Your task to perform on an android device: Open calendar and show me the first week of next month Image 0: 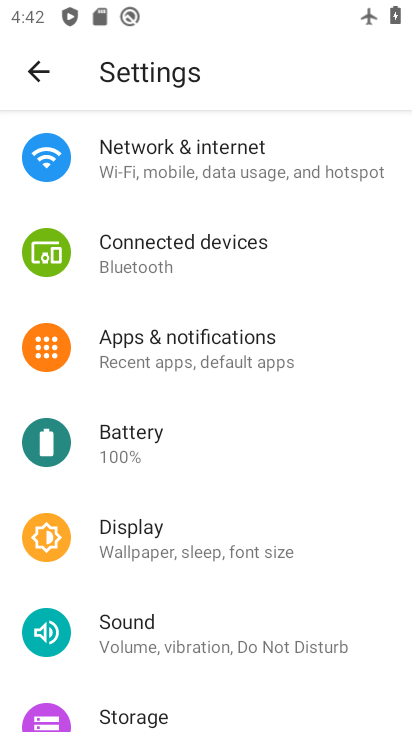
Step 0: press home button
Your task to perform on an android device: Open calendar and show me the first week of next month Image 1: 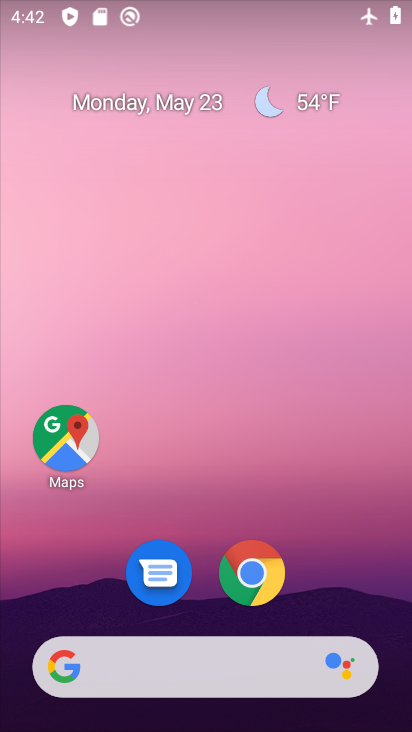
Step 1: drag from (269, 707) to (251, 148)
Your task to perform on an android device: Open calendar and show me the first week of next month Image 2: 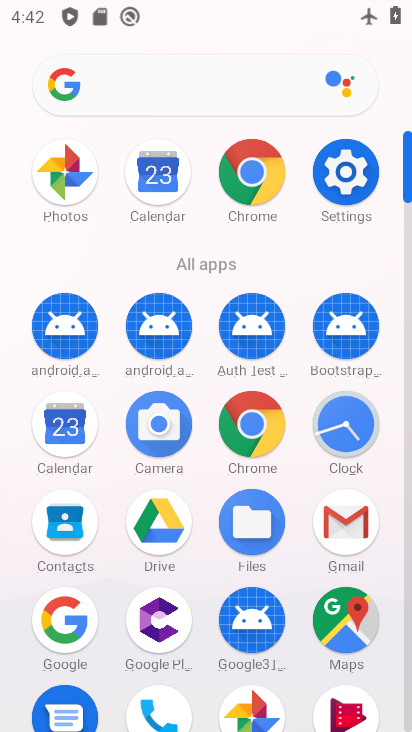
Step 2: click (63, 437)
Your task to perform on an android device: Open calendar and show me the first week of next month Image 3: 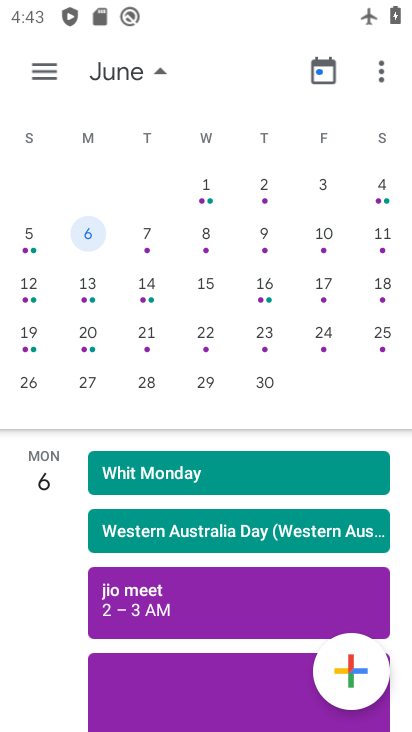
Step 3: click (49, 64)
Your task to perform on an android device: Open calendar and show me the first week of next month Image 4: 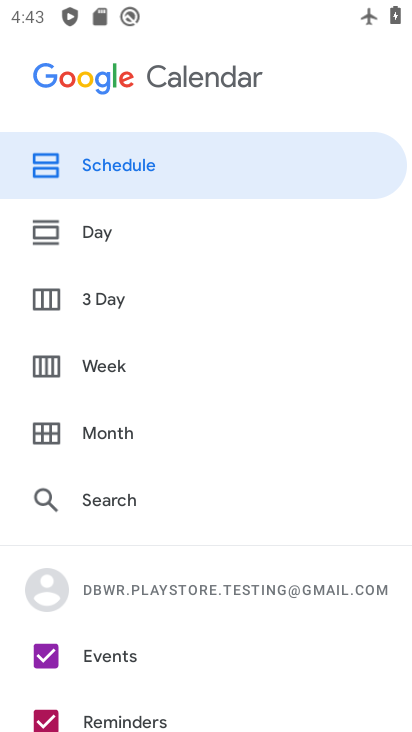
Step 4: click (103, 362)
Your task to perform on an android device: Open calendar and show me the first week of next month Image 5: 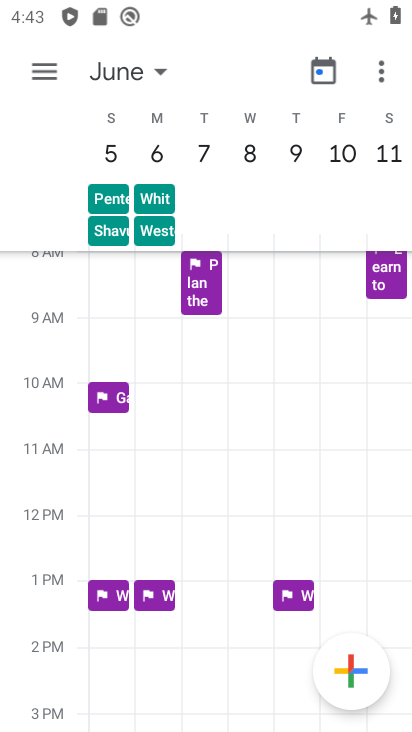
Step 5: task complete